Your task to perform on an android device: check google app version Image 0: 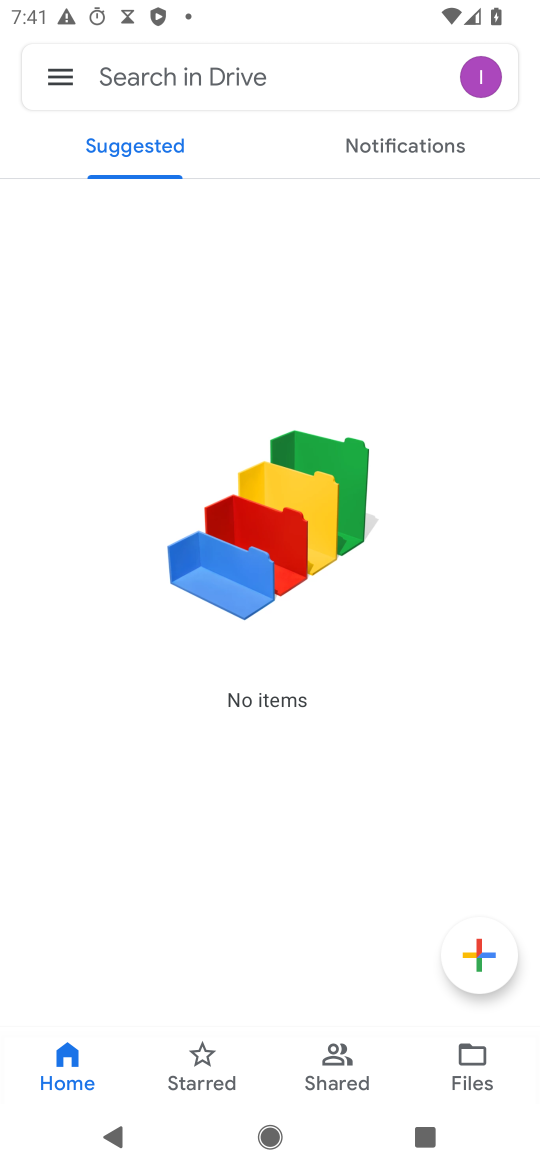
Step 0: press home button
Your task to perform on an android device: check google app version Image 1: 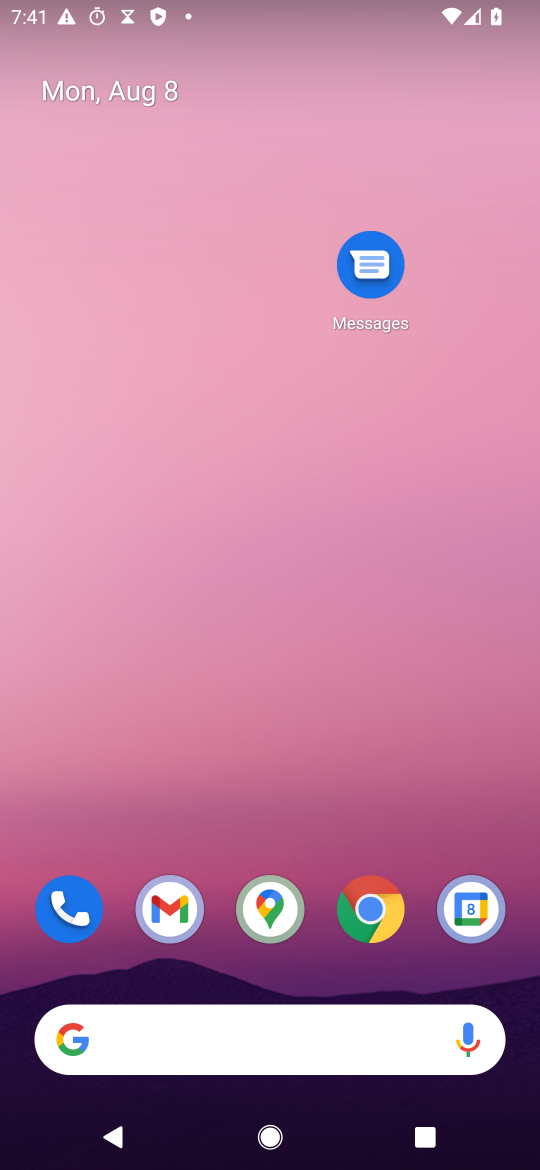
Step 1: drag from (212, 1030) to (536, 180)
Your task to perform on an android device: check google app version Image 2: 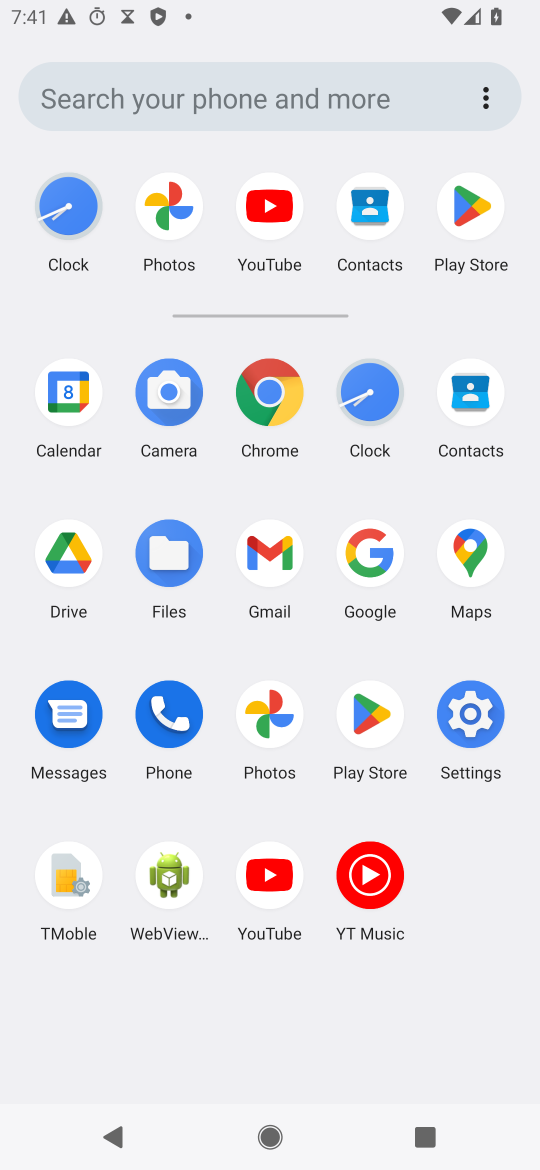
Step 2: click (386, 553)
Your task to perform on an android device: check google app version Image 3: 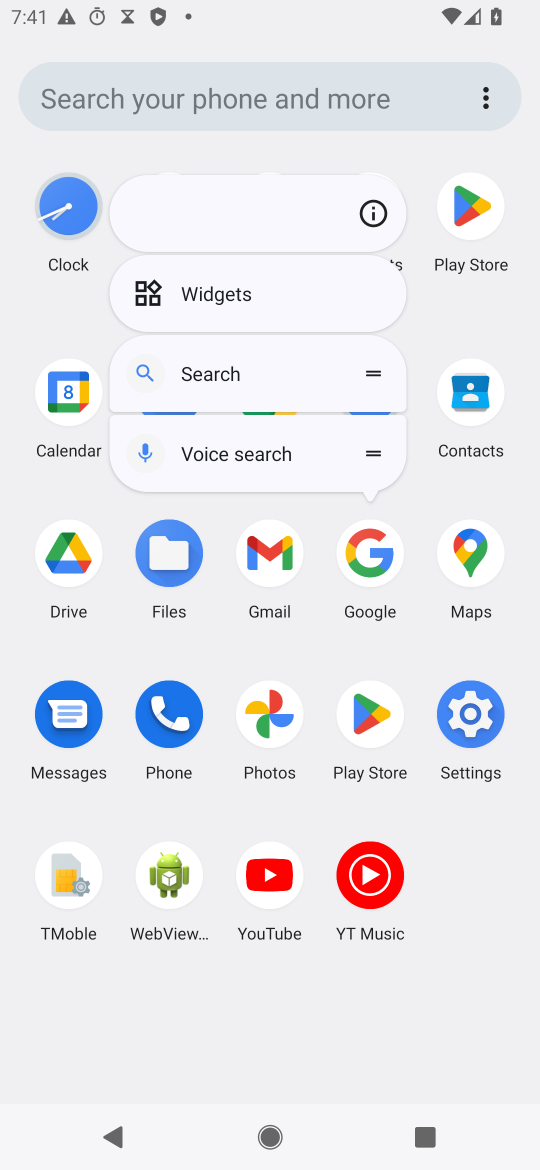
Step 3: click (372, 210)
Your task to perform on an android device: check google app version Image 4: 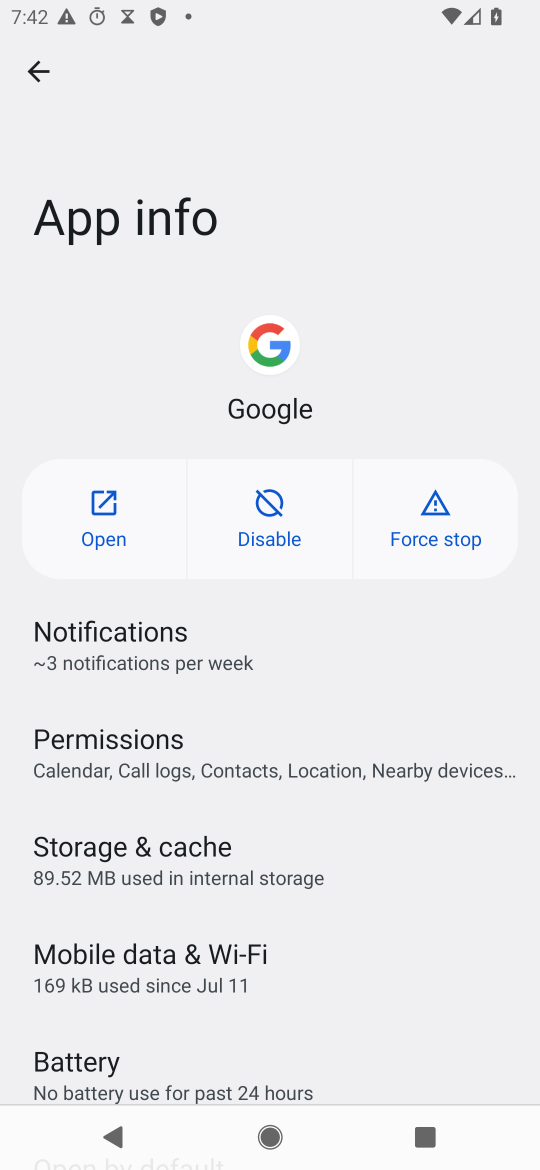
Step 4: task complete